Your task to perform on an android device: toggle improve location accuracy Image 0: 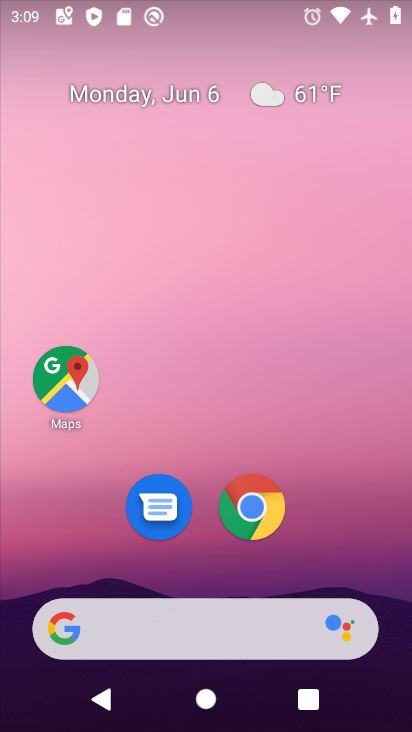
Step 0: drag from (341, 557) to (344, 96)
Your task to perform on an android device: toggle improve location accuracy Image 1: 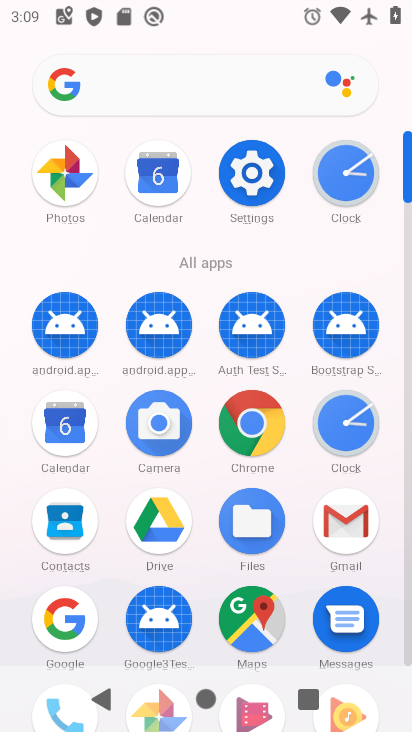
Step 1: click (239, 181)
Your task to perform on an android device: toggle improve location accuracy Image 2: 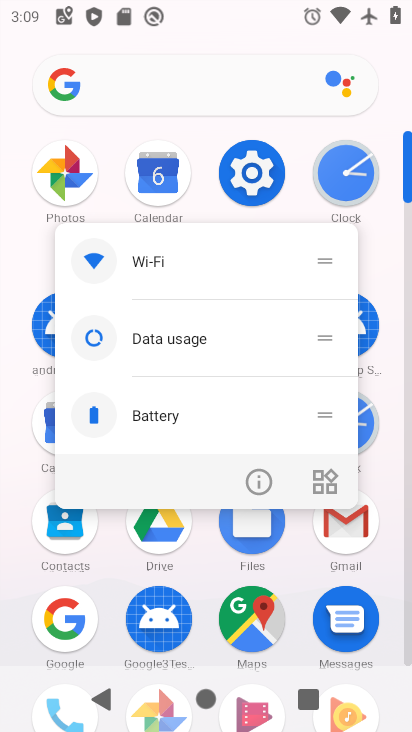
Step 2: click (258, 172)
Your task to perform on an android device: toggle improve location accuracy Image 3: 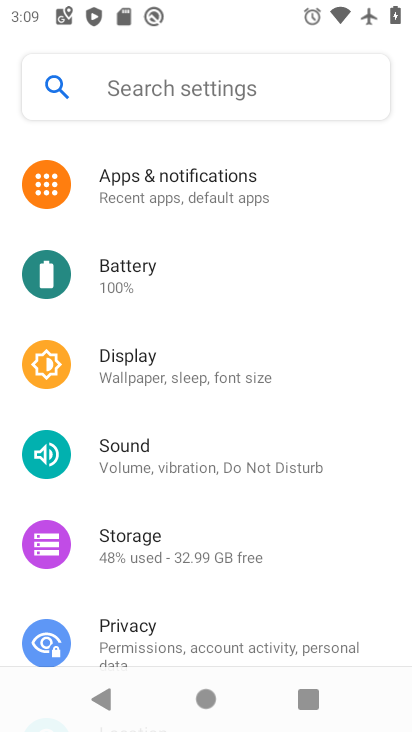
Step 3: drag from (327, 585) to (411, 360)
Your task to perform on an android device: toggle improve location accuracy Image 4: 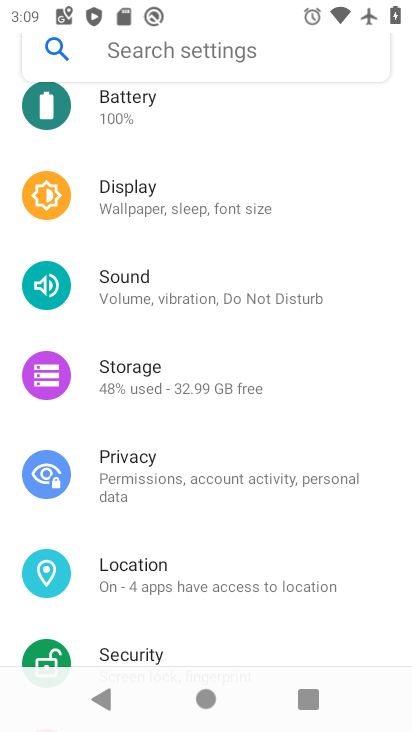
Step 4: click (193, 574)
Your task to perform on an android device: toggle improve location accuracy Image 5: 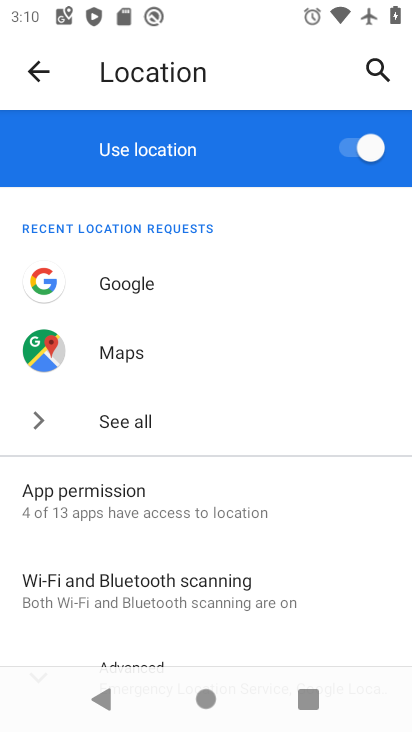
Step 5: drag from (308, 527) to (339, 138)
Your task to perform on an android device: toggle improve location accuracy Image 6: 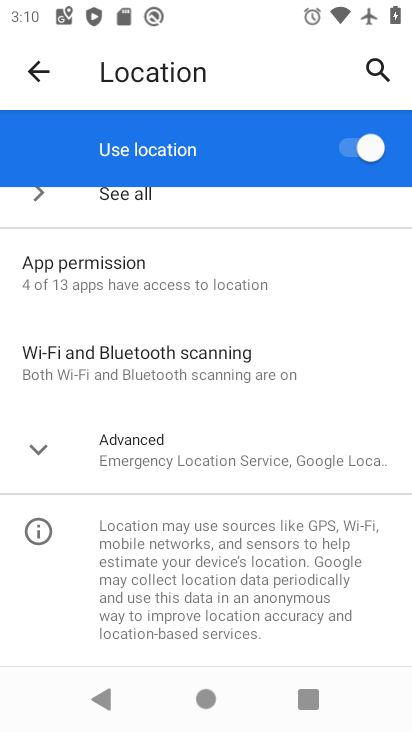
Step 6: click (25, 444)
Your task to perform on an android device: toggle improve location accuracy Image 7: 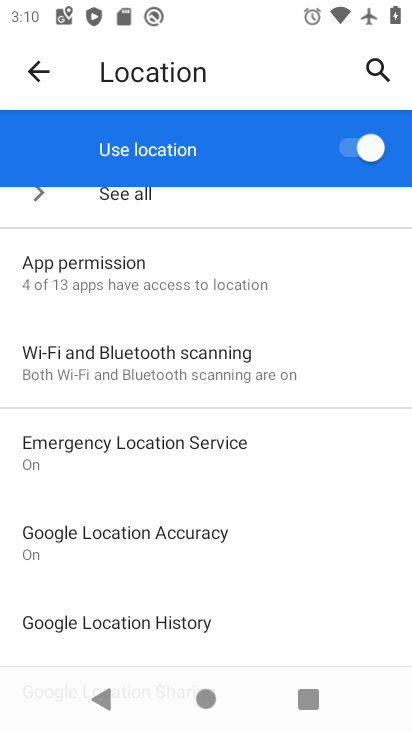
Step 7: click (168, 534)
Your task to perform on an android device: toggle improve location accuracy Image 8: 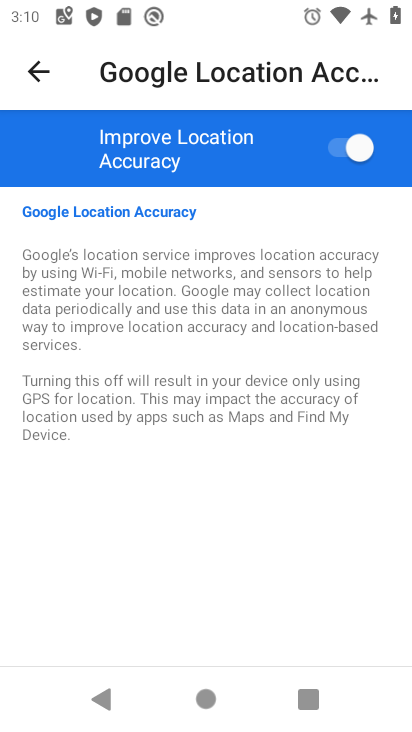
Step 8: click (368, 150)
Your task to perform on an android device: toggle improve location accuracy Image 9: 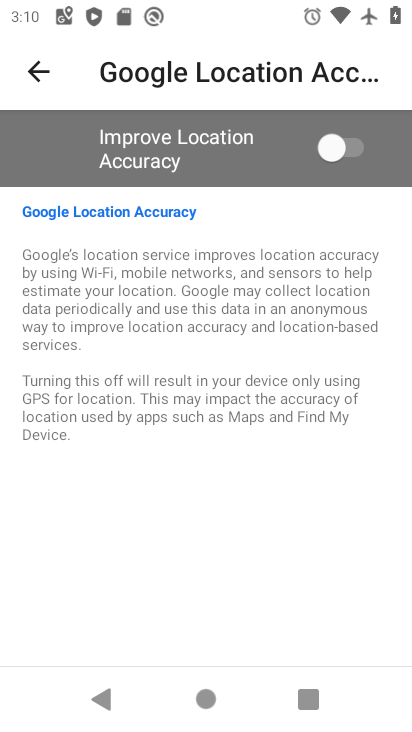
Step 9: task complete